Your task to perform on an android device: Open Google Maps and go to "Timeline" Image 0: 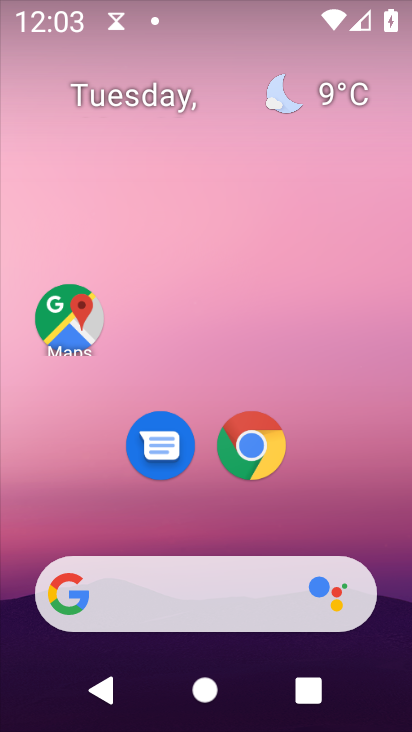
Step 0: drag from (340, 657) to (329, 153)
Your task to perform on an android device: Open Google Maps and go to "Timeline" Image 1: 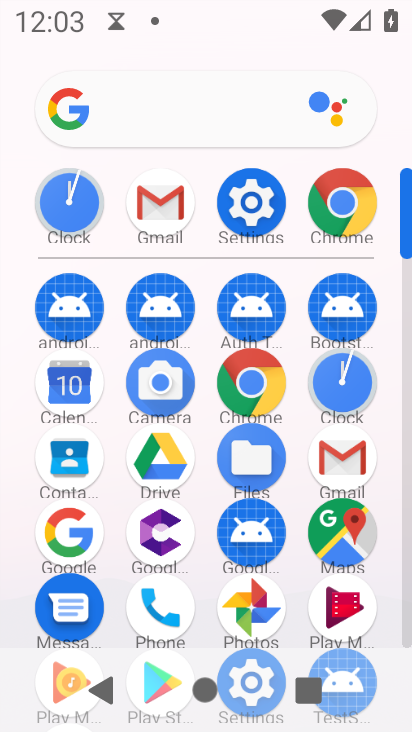
Step 1: click (340, 537)
Your task to perform on an android device: Open Google Maps and go to "Timeline" Image 2: 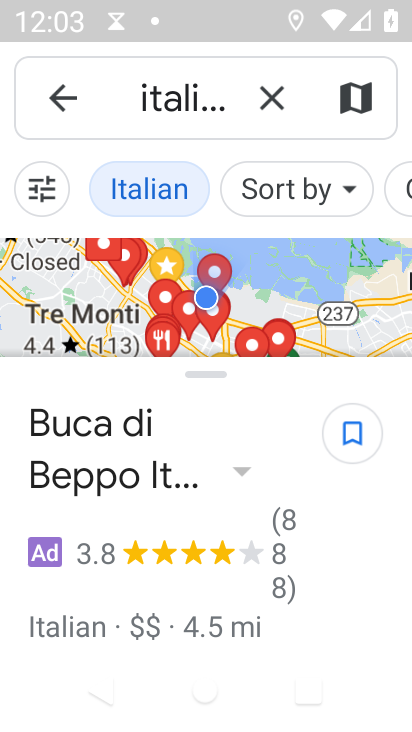
Step 2: press back button
Your task to perform on an android device: Open Google Maps and go to "Timeline" Image 3: 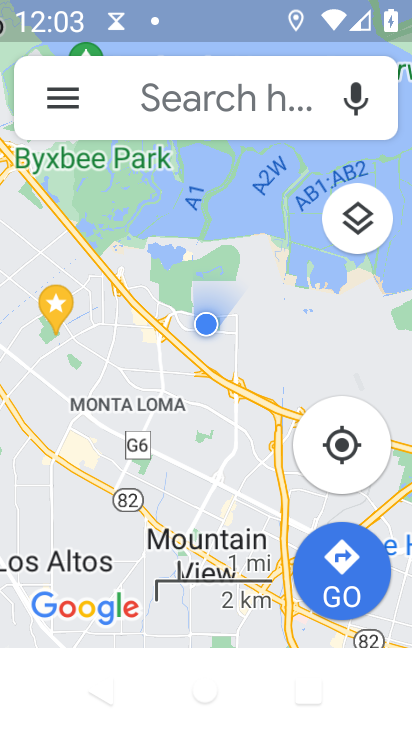
Step 3: click (55, 98)
Your task to perform on an android device: Open Google Maps and go to "Timeline" Image 4: 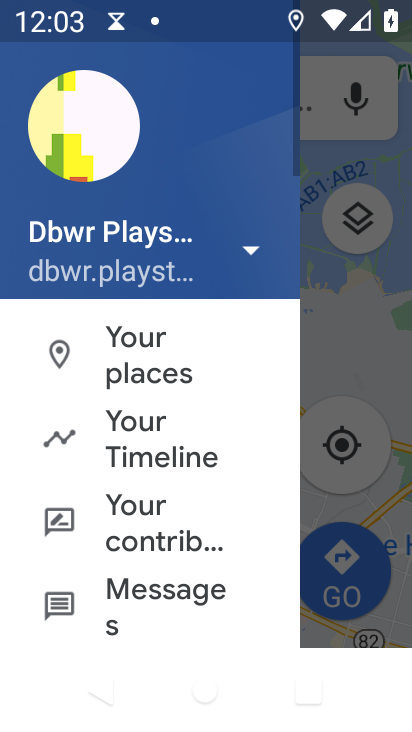
Step 4: click (119, 453)
Your task to perform on an android device: Open Google Maps and go to "Timeline" Image 5: 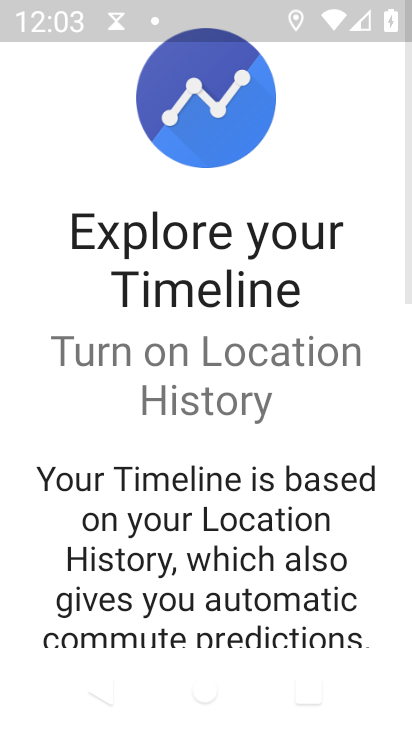
Step 5: drag from (173, 562) to (154, 108)
Your task to perform on an android device: Open Google Maps and go to "Timeline" Image 6: 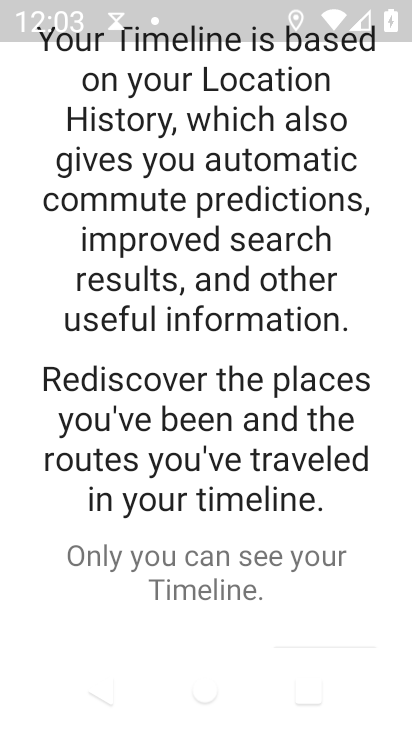
Step 6: drag from (308, 614) to (259, 202)
Your task to perform on an android device: Open Google Maps and go to "Timeline" Image 7: 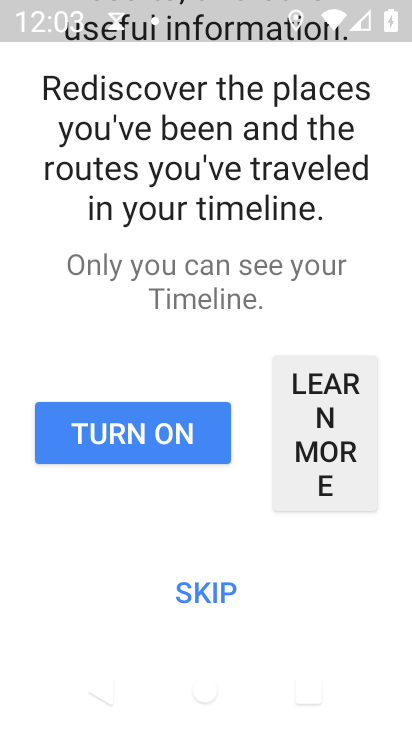
Step 7: click (207, 588)
Your task to perform on an android device: Open Google Maps and go to "Timeline" Image 8: 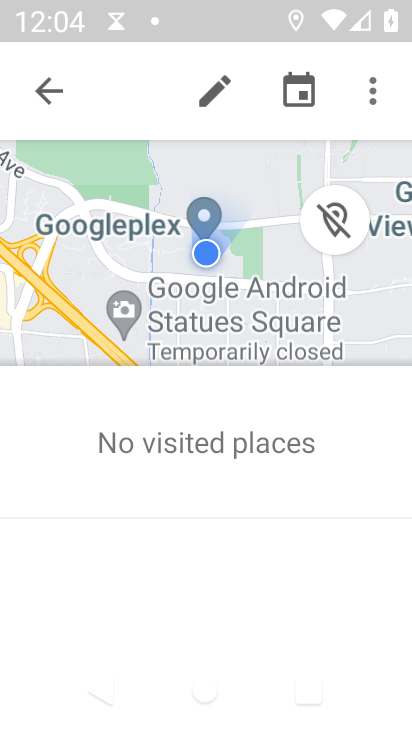
Step 8: task complete